Your task to perform on an android device: Search for a 4k TV on Best Buy Image 0: 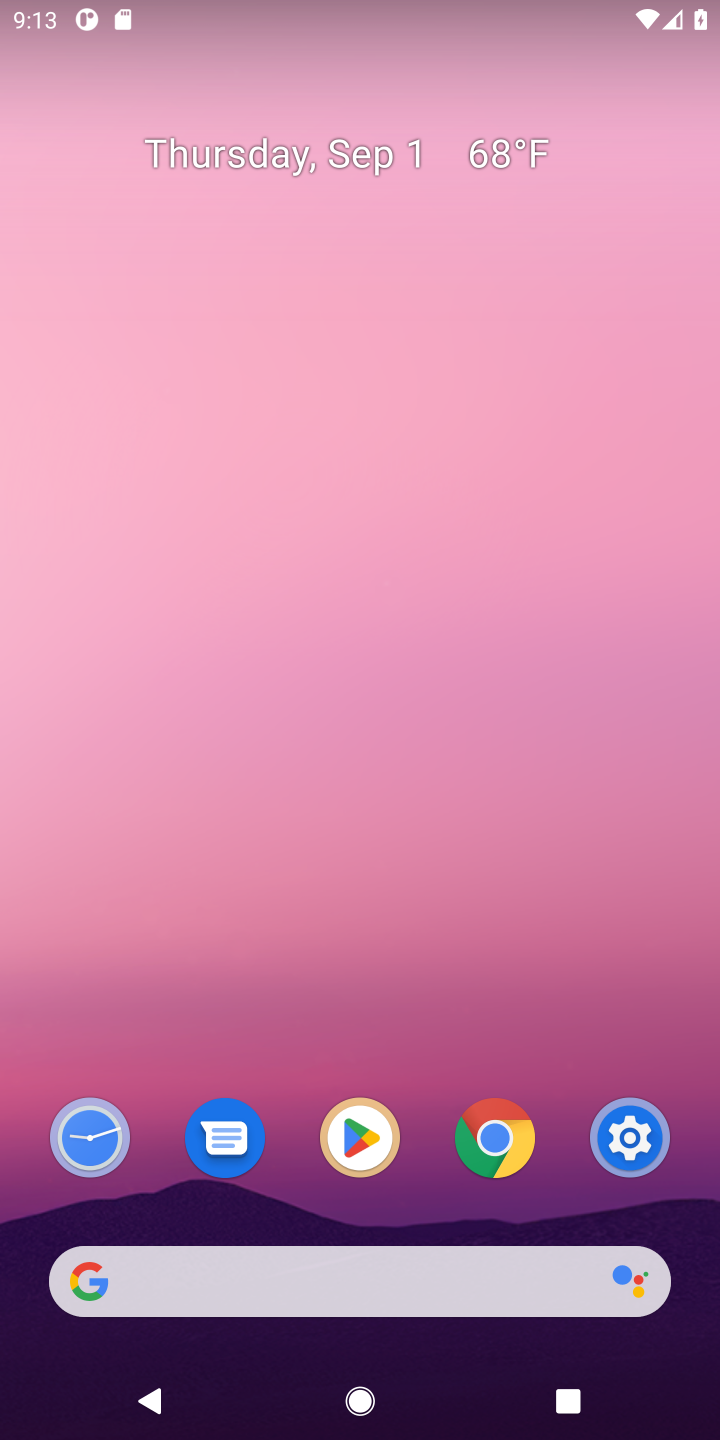
Step 0: click (320, 1290)
Your task to perform on an android device: Search for a 4k TV on Best Buy Image 1: 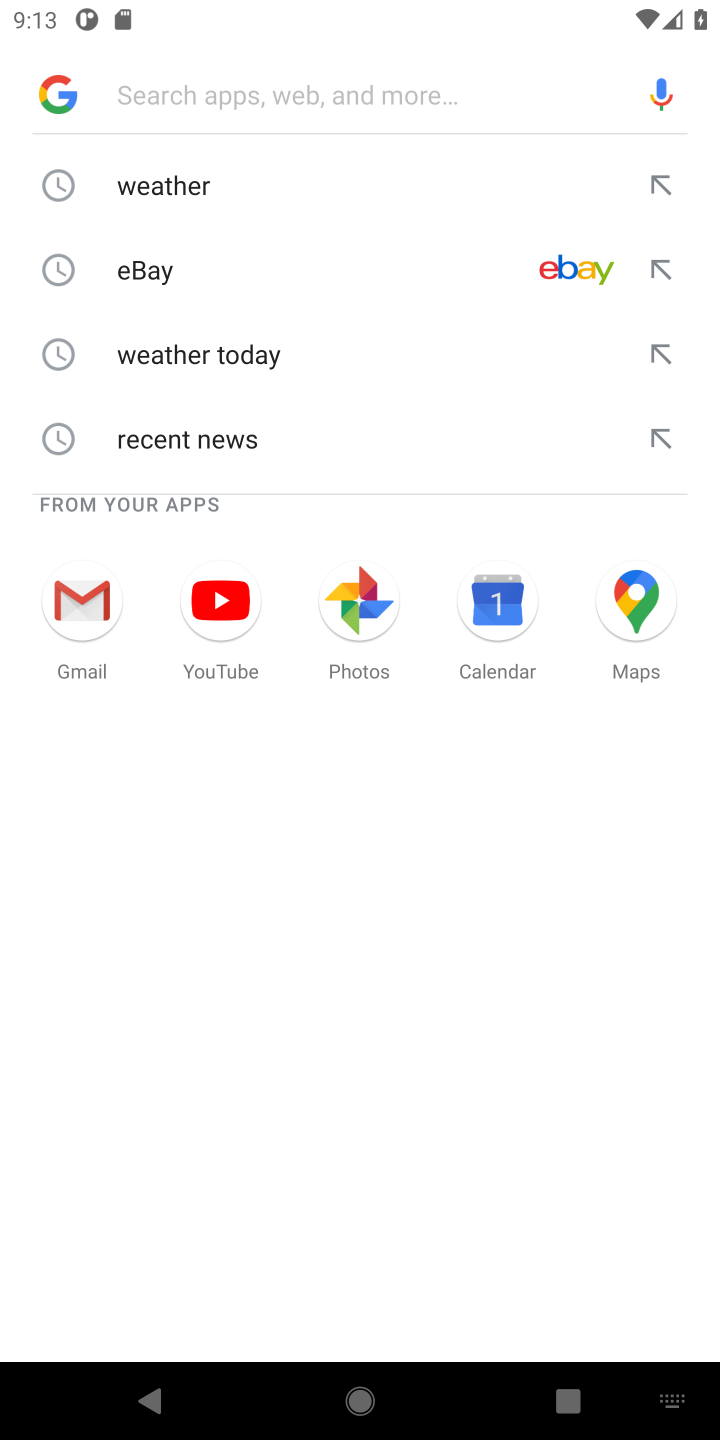
Step 1: click (165, 90)
Your task to perform on an android device: Search for a 4k TV on Best Buy Image 2: 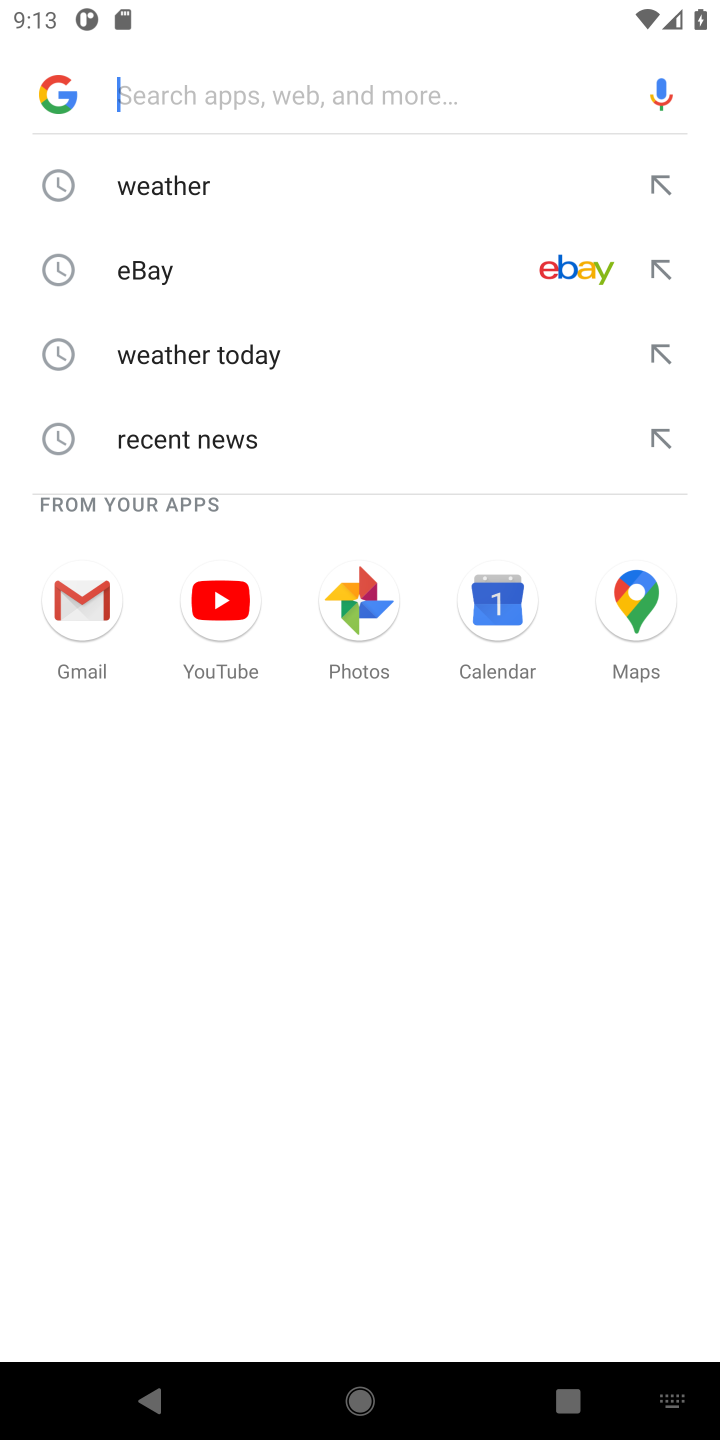
Step 2: type "4k TV on Best Buy"
Your task to perform on an android device: Search for a 4k TV on Best Buy Image 3: 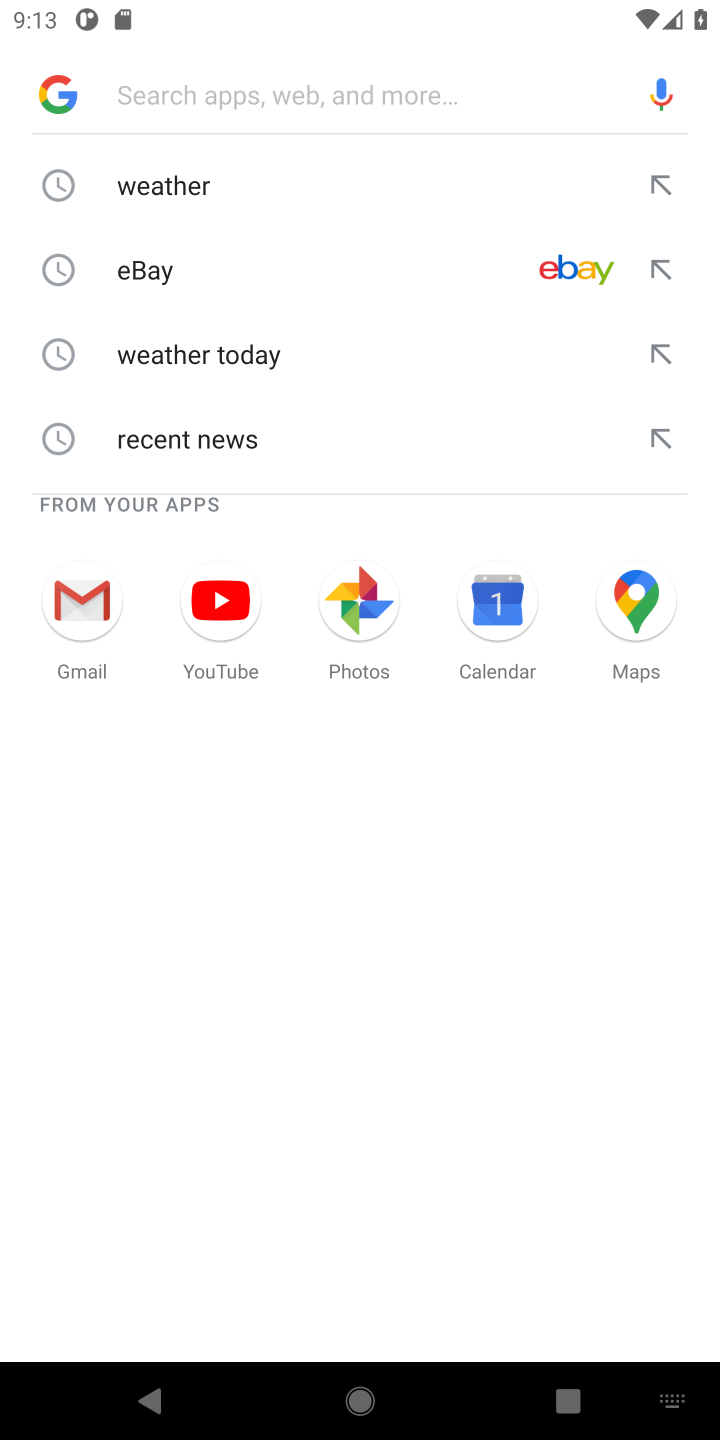
Step 3: click (239, 112)
Your task to perform on an android device: Search for a 4k TV on Best Buy Image 4: 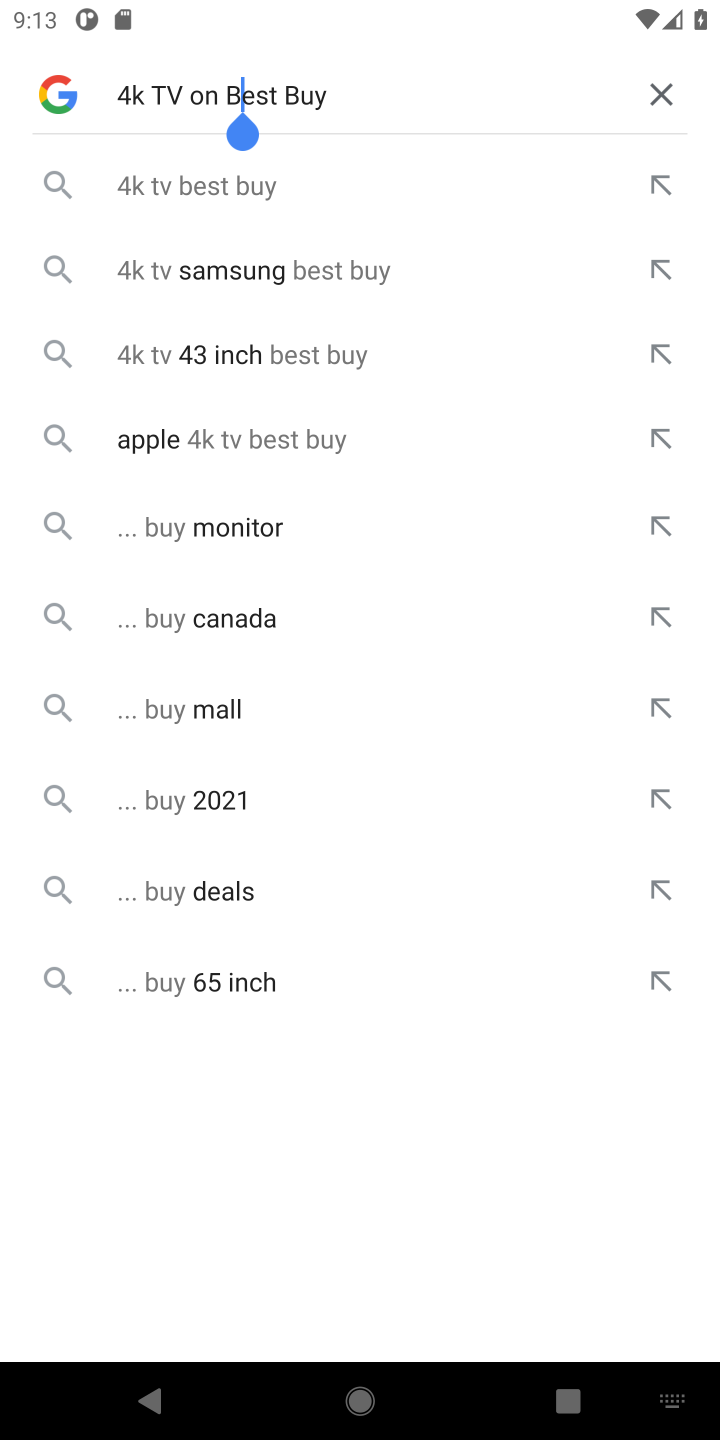
Step 4: click (475, 79)
Your task to perform on an android device: Search for a 4k TV on Best Buy Image 5: 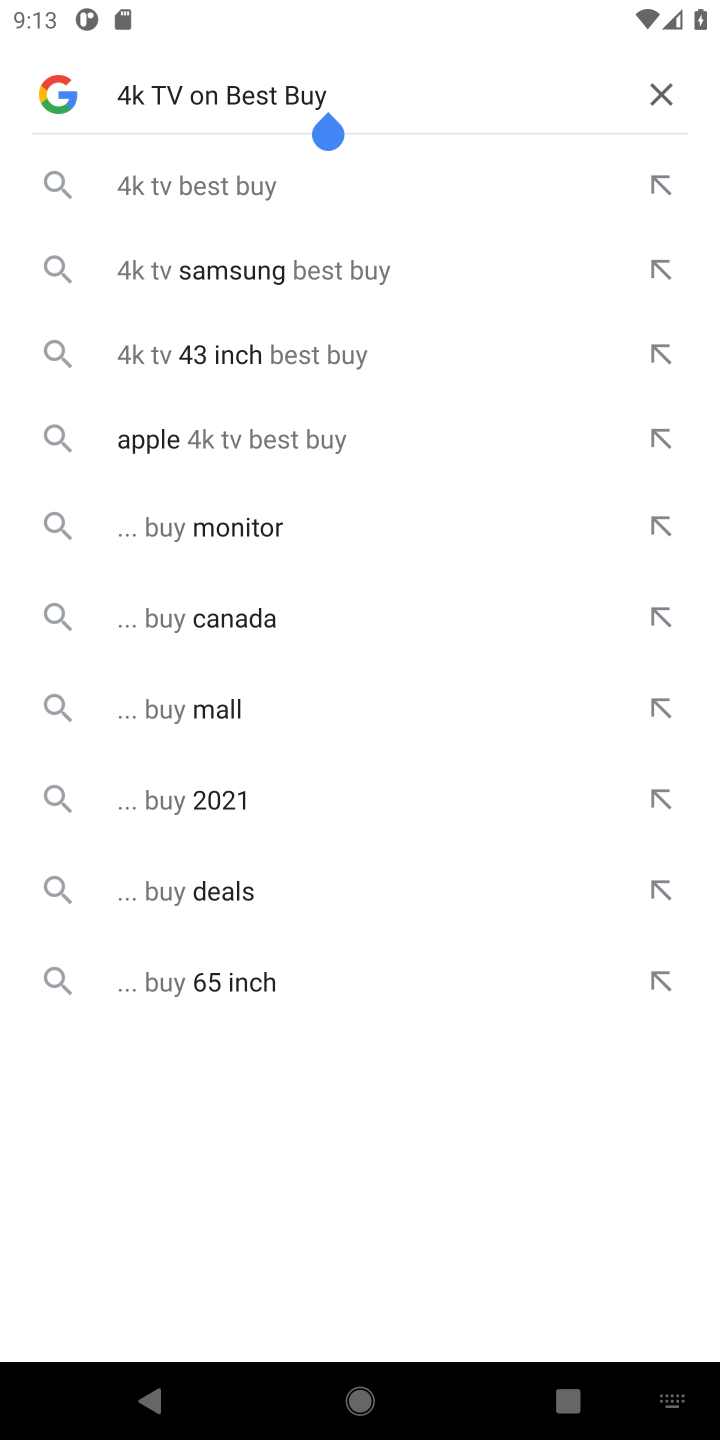
Step 5: click (192, 170)
Your task to perform on an android device: Search for a 4k TV on Best Buy Image 6: 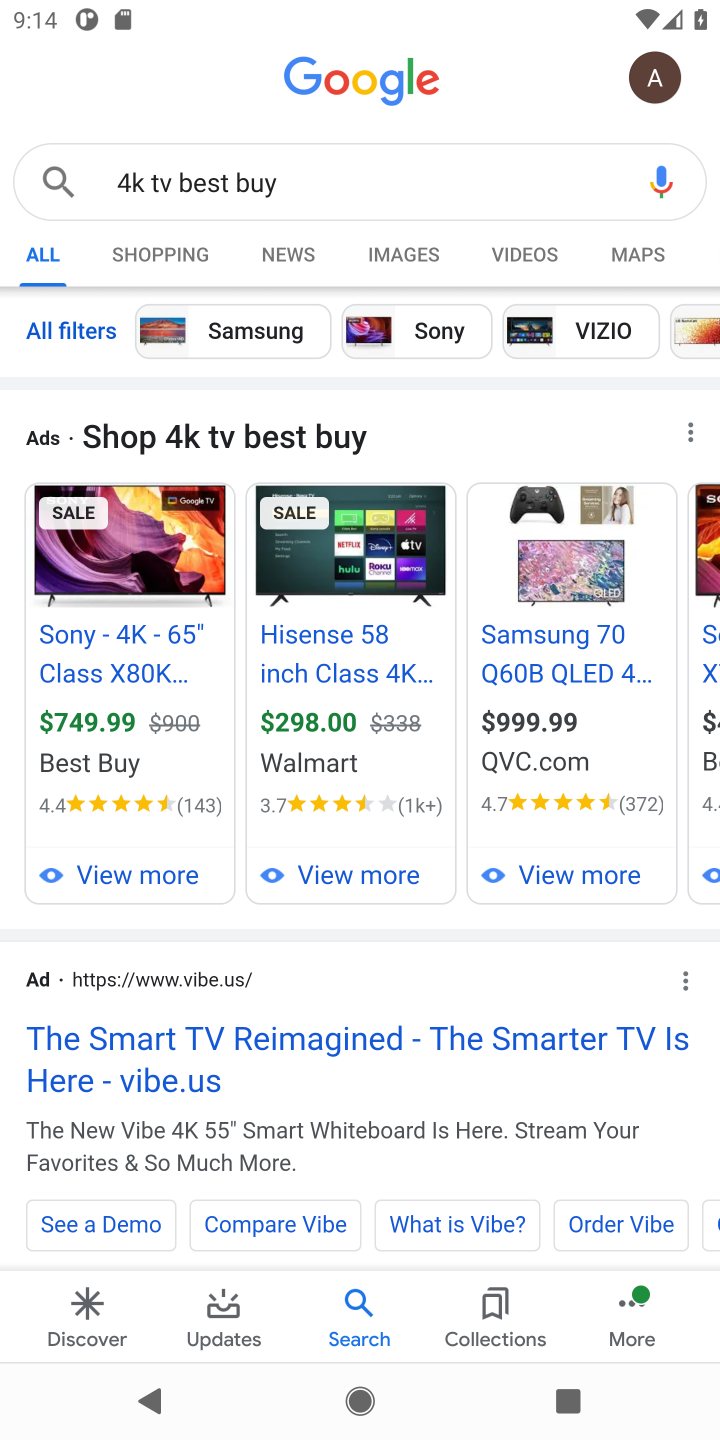
Step 6: click (81, 645)
Your task to perform on an android device: Search for a 4k TV on Best Buy Image 7: 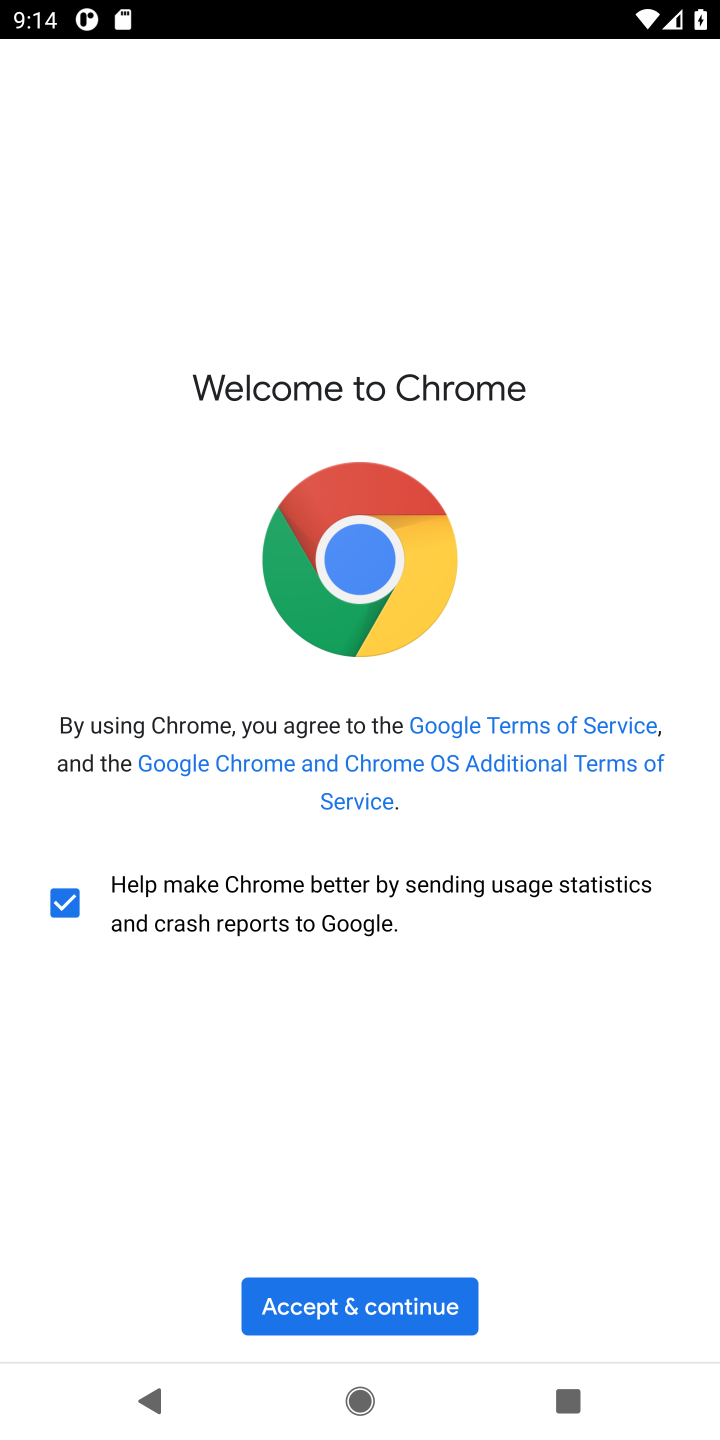
Step 7: click (318, 1319)
Your task to perform on an android device: Search for a 4k TV on Best Buy Image 8: 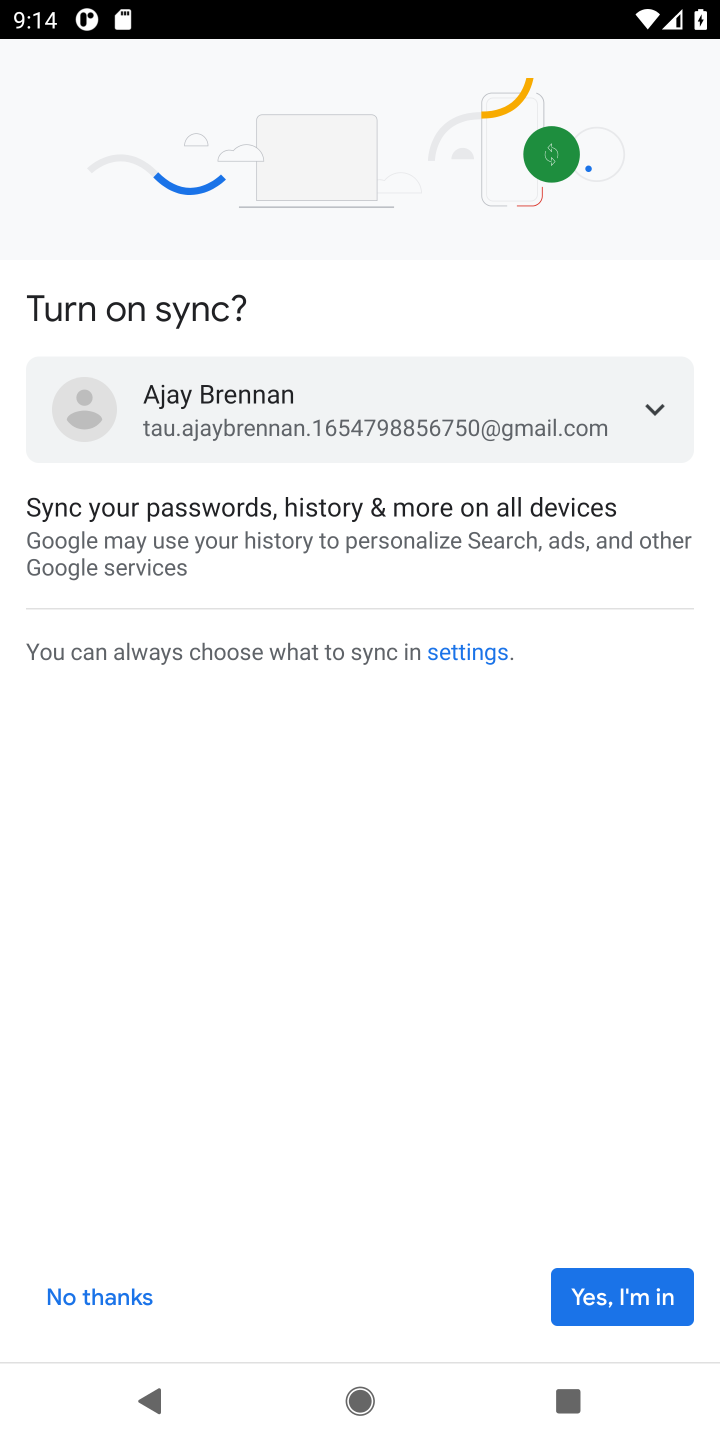
Step 8: click (609, 1300)
Your task to perform on an android device: Search for a 4k TV on Best Buy Image 9: 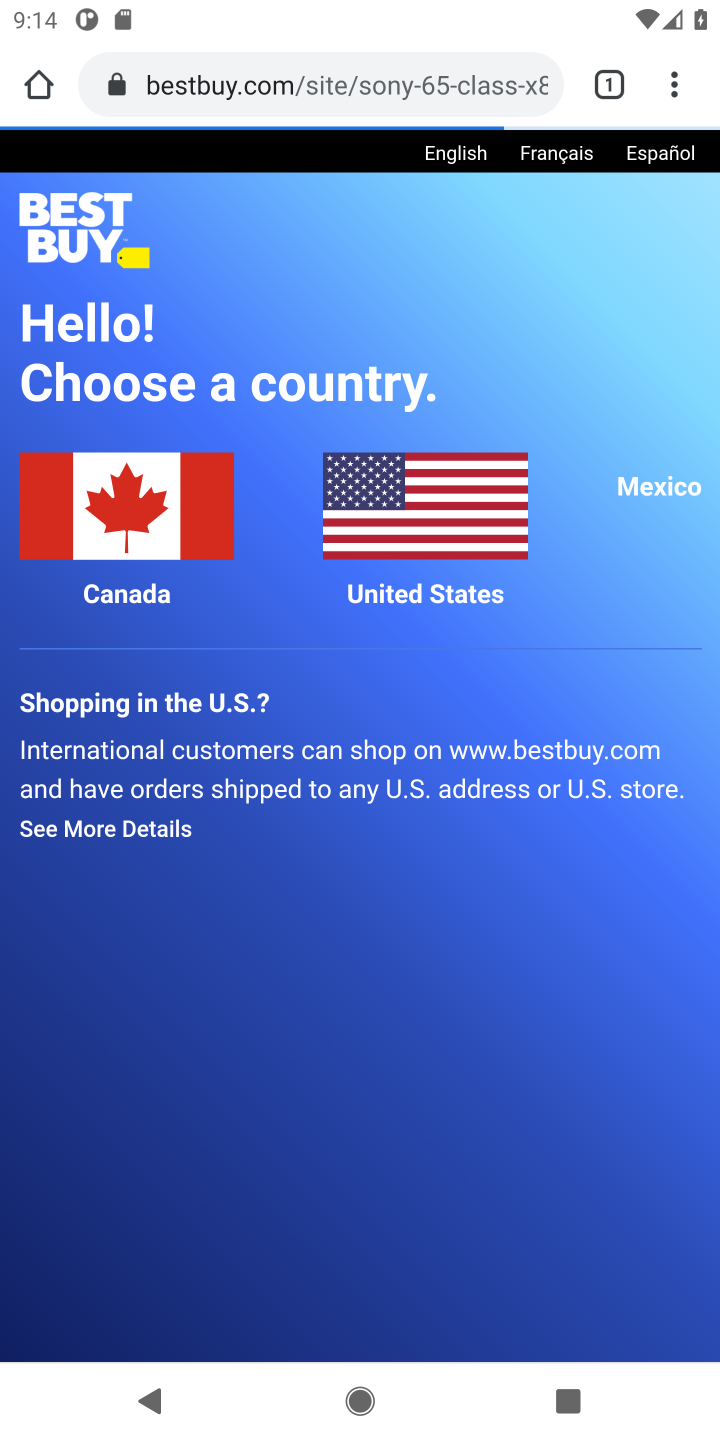
Step 9: task complete